Your task to perform on an android device: Open Google Chrome and open the bookmarks view Image 0: 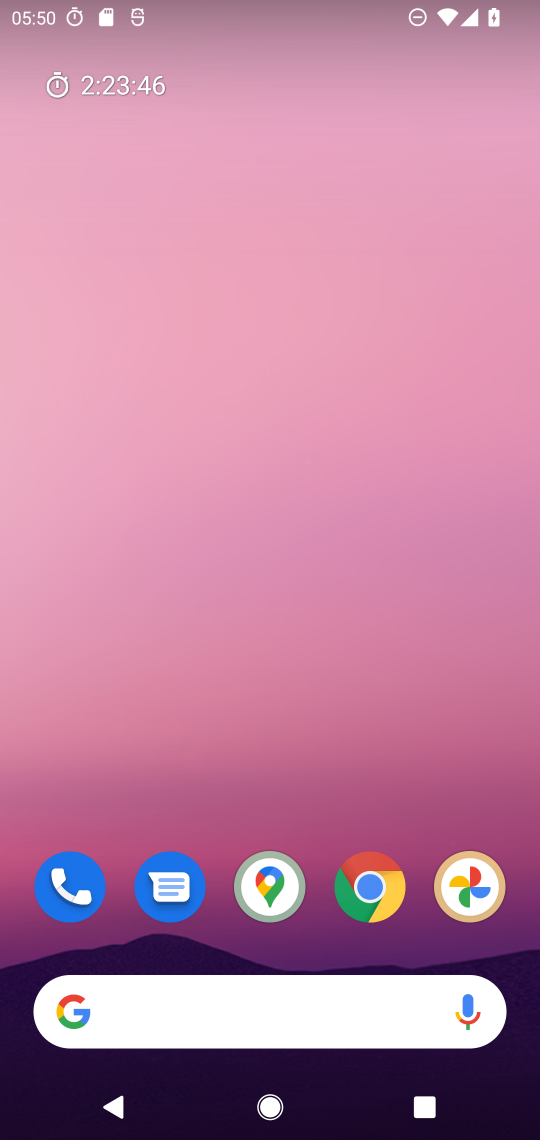
Step 0: drag from (417, 756) to (429, 193)
Your task to perform on an android device: Open Google Chrome and open the bookmarks view Image 1: 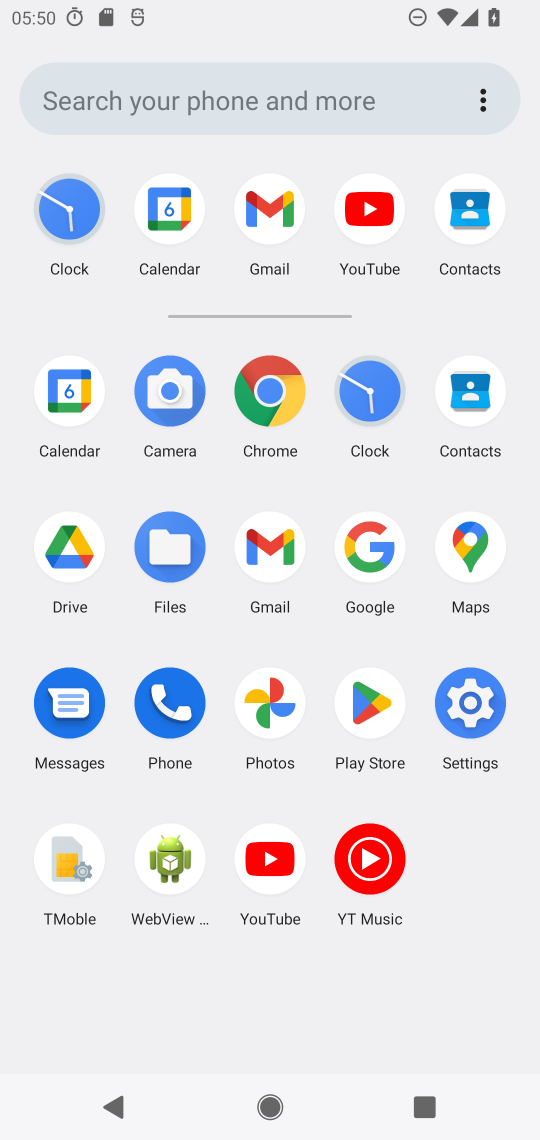
Step 1: click (259, 406)
Your task to perform on an android device: Open Google Chrome and open the bookmarks view Image 2: 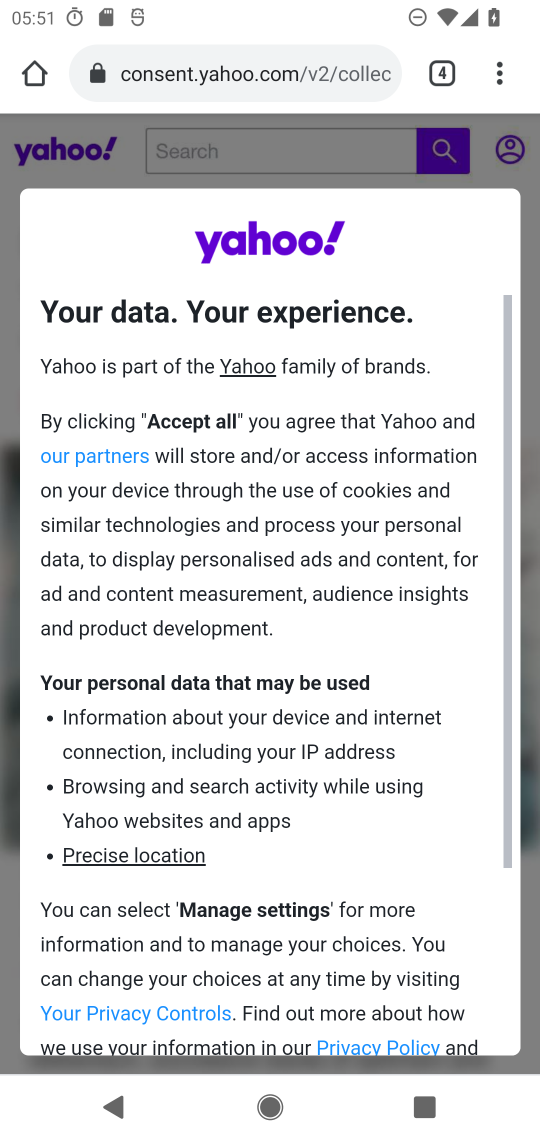
Step 2: click (497, 79)
Your task to perform on an android device: Open Google Chrome and open the bookmarks view Image 3: 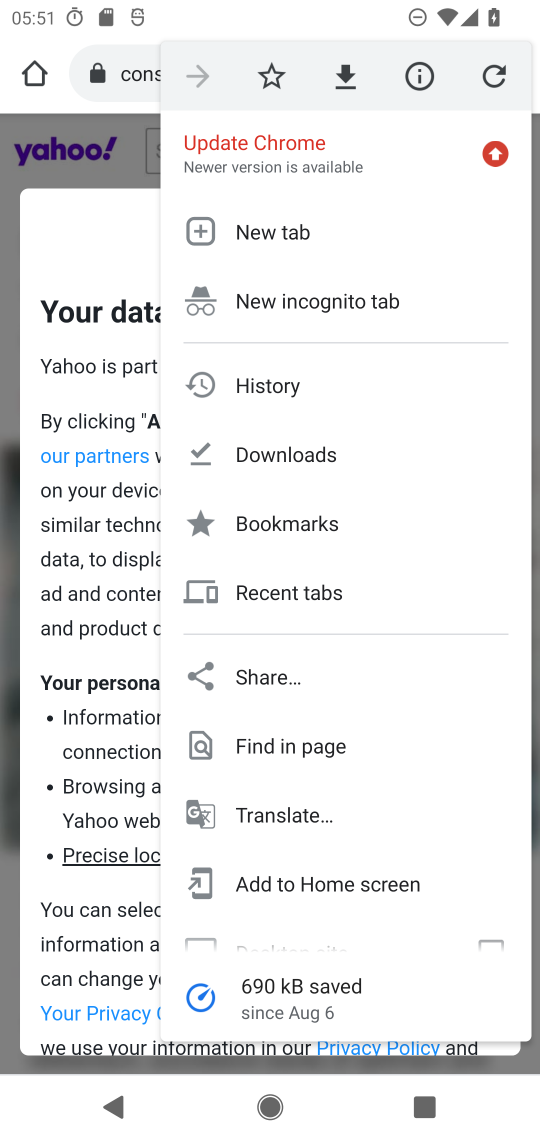
Step 3: click (304, 514)
Your task to perform on an android device: Open Google Chrome and open the bookmarks view Image 4: 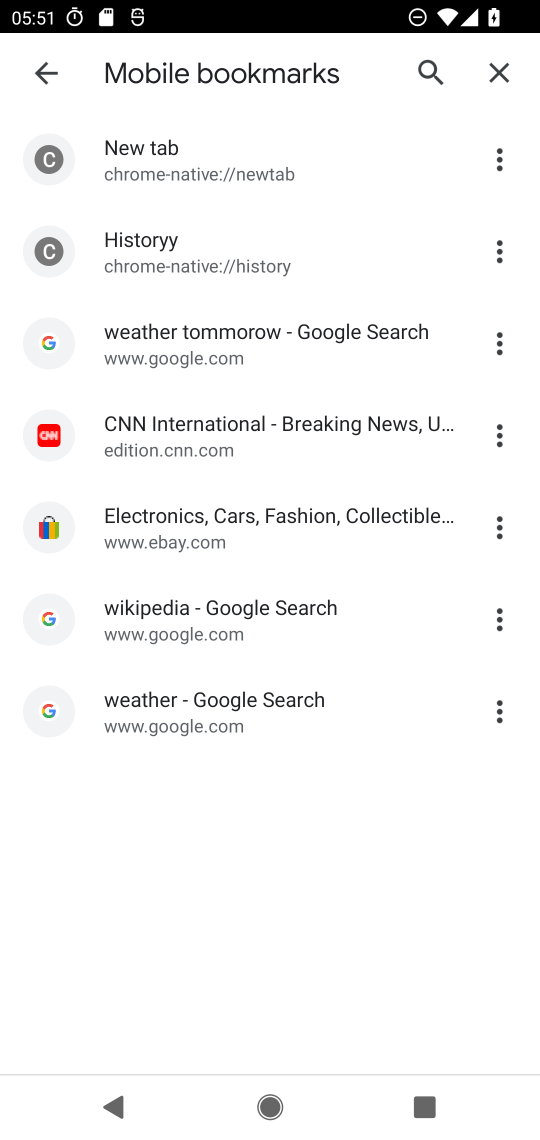
Step 4: task complete